Your task to perform on an android device: refresh tabs in the chrome app Image 0: 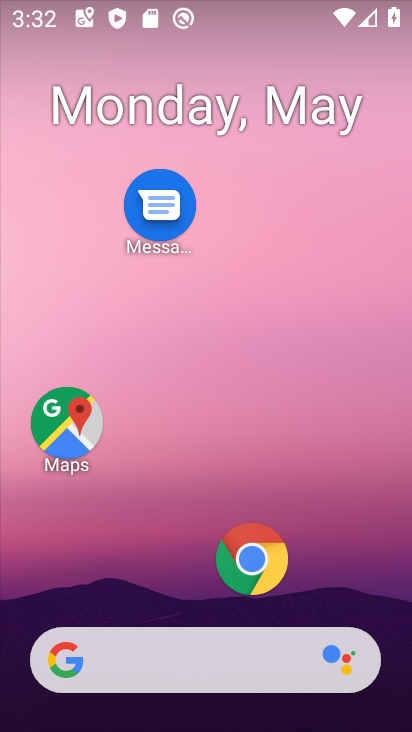
Step 0: click (252, 553)
Your task to perform on an android device: refresh tabs in the chrome app Image 1: 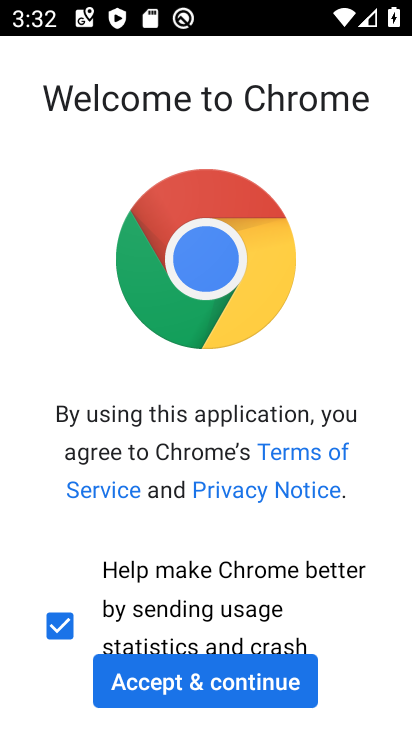
Step 1: click (228, 685)
Your task to perform on an android device: refresh tabs in the chrome app Image 2: 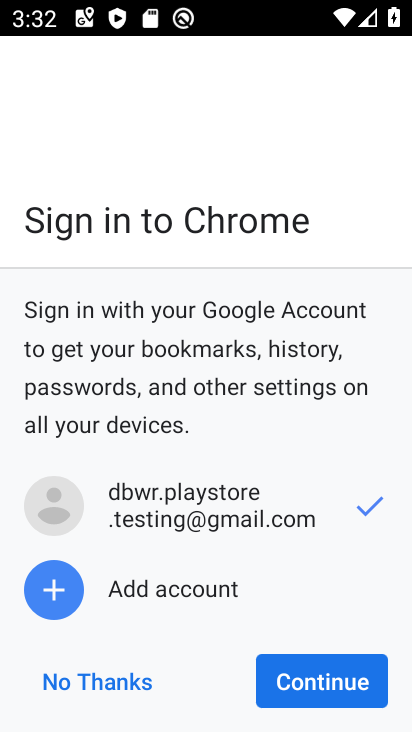
Step 2: click (340, 680)
Your task to perform on an android device: refresh tabs in the chrome app Image 3: 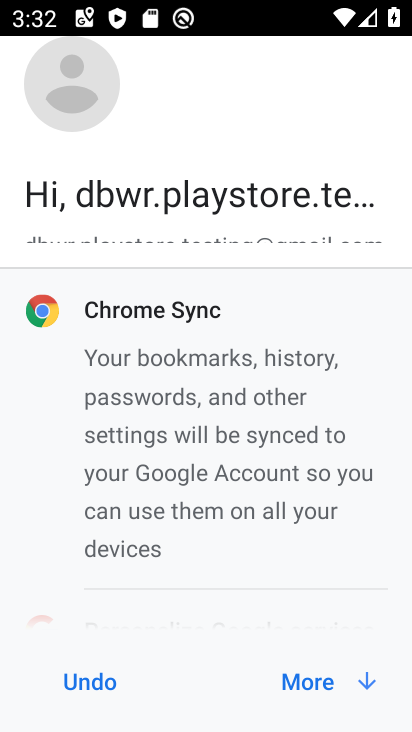
Step 3: click (338, 680)
Your task to perform on an android device: refresh tabs in the chrome app Image 4: 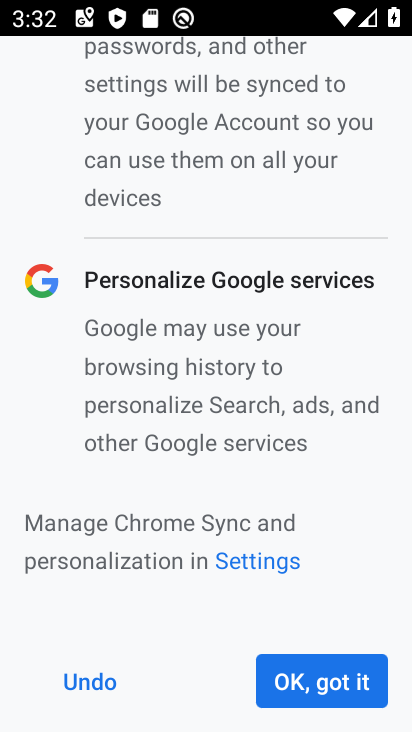
Step 4: click (334, 674)
Your task to perform on an android device: refresh tabs in the chrome app Image 5: 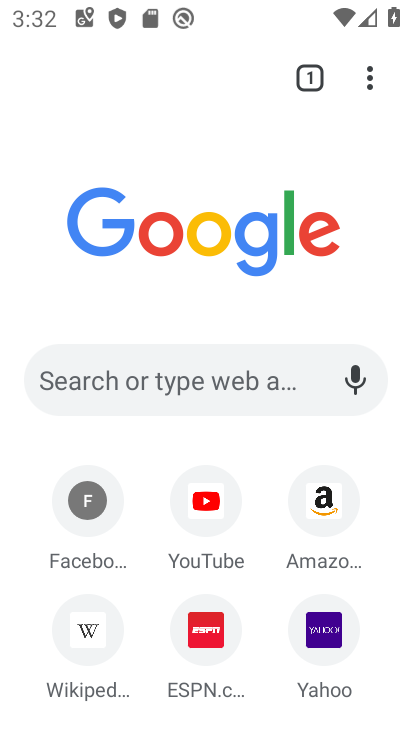
Step 5: click (374, 83)
Your task to perform on an android device: refresh tabs in the chrome app Image 6: 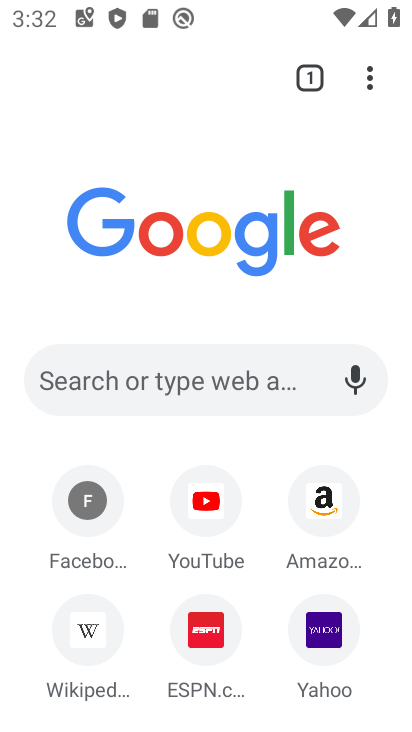
Step 6: click (366, 77)
Your task to perform on an android device: refresh tabs in the chrome app Image 7: 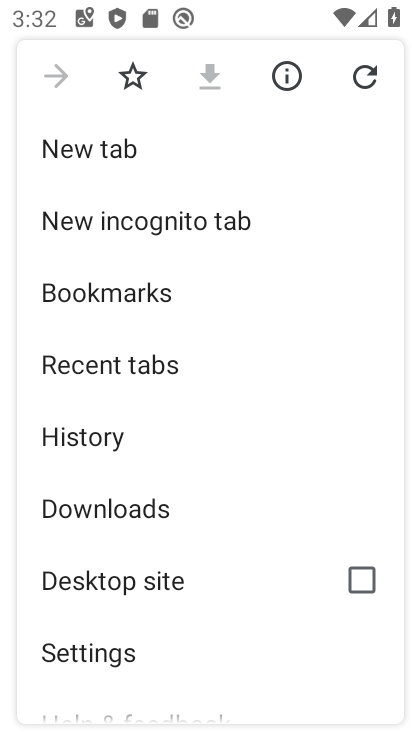
Step 7: click (359, 82)
Your task to perform on an android device: refresh tabs in the chrome app Image 8: 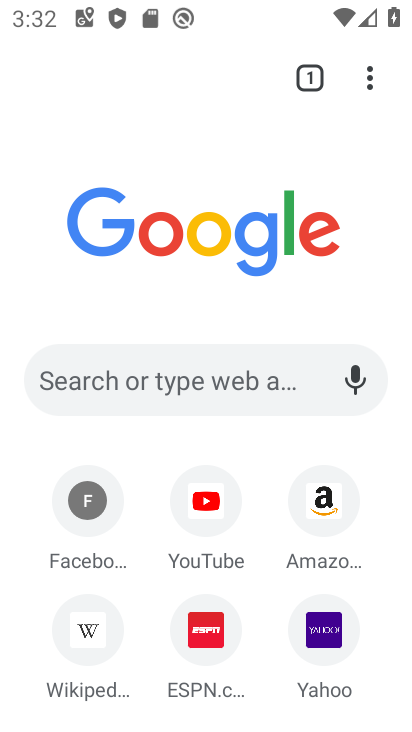
Step 8: task complete